Your task to perform on an android device: Turn on the flashlight Image 0: 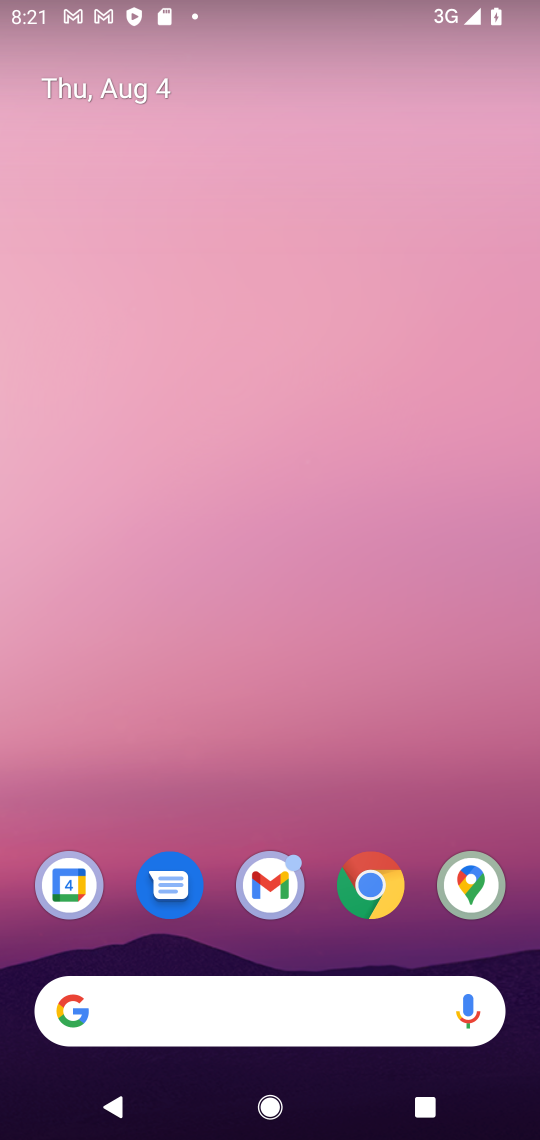
Step 0: press home button
Your task to perform on an android device: Turn on the flashlight Image 1: 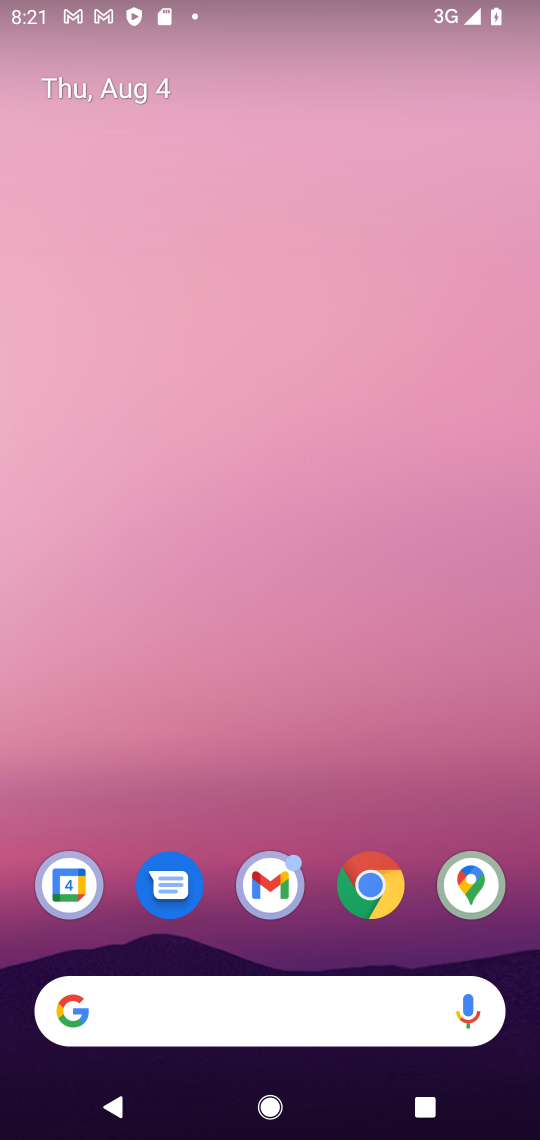
Step 1: task complete